Your task to perform on an android device: Go to display settings Image 0: 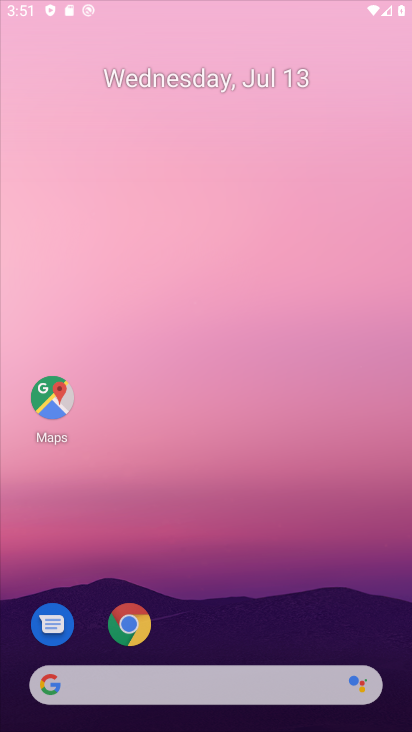
Step 0: press home button
Your task to perform on an android device: Go to display settings Image 1: 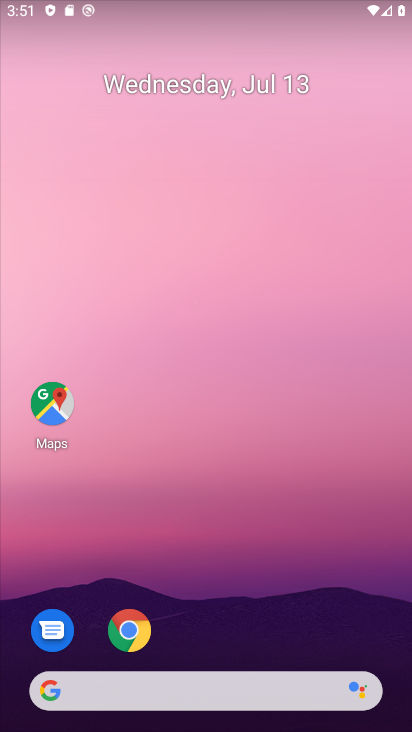
Step 1: drag from (260, 636) to (316, 28)
Your task to perform on an android device: Go to display settings Image 2: 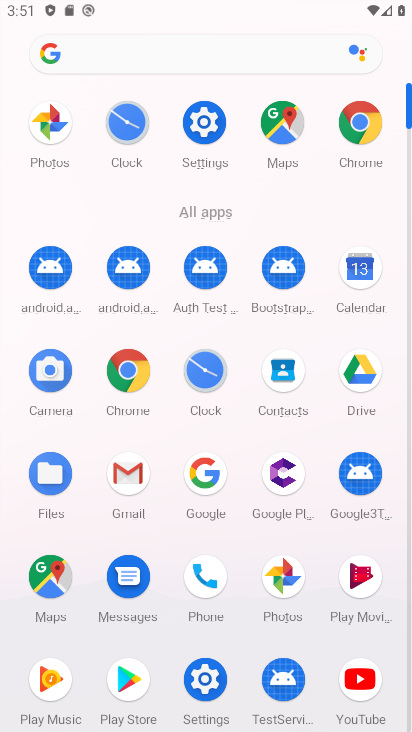
Step 2: click (206, 122)
Your task to perform on an android device: Go to display settings Image 3: 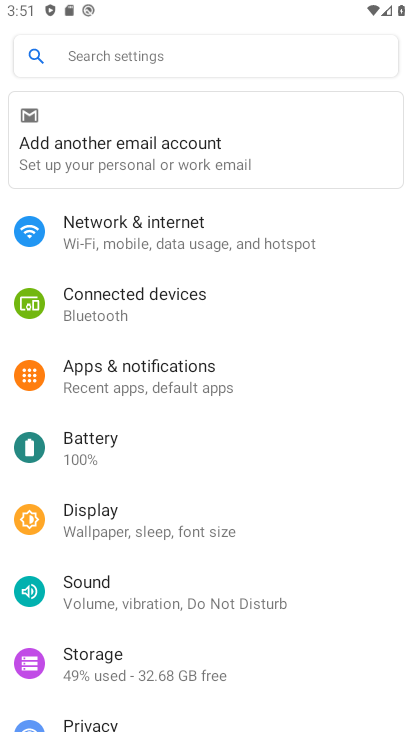
Step 3: click (83, 523)
Your task to perform on an android device: Go to display settings Image 4: 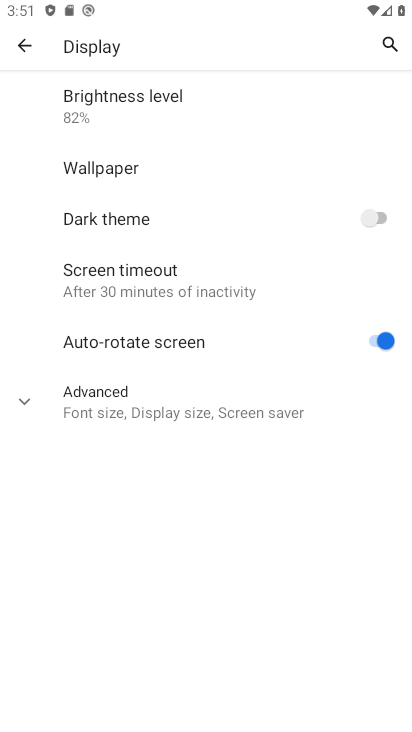
Step 4: task complete